Your task to perform on an android device: open chrome and create a bookmark for the current page Image 0: 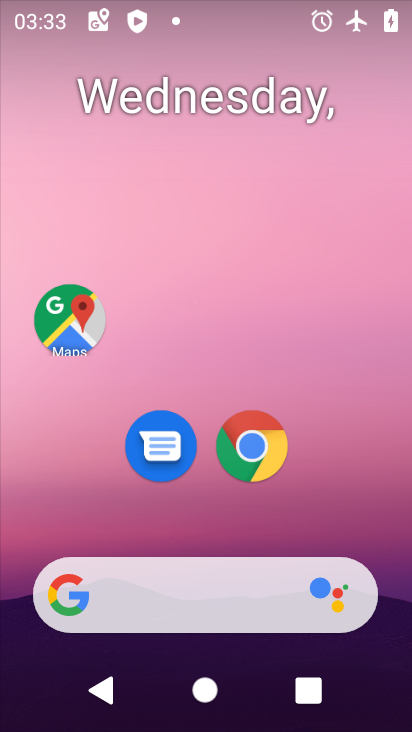
Step 0: click (280, 455)
Your task to perform on an android device: open chrome and create a bookmark for the current page Image 1: 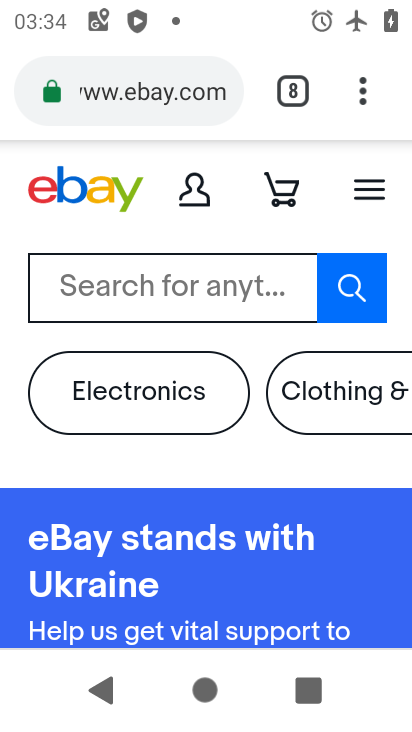
Step 1: click (358, 93)
Your task to perform on an android device: open chrome and create a bookmark for the current page Image 2: 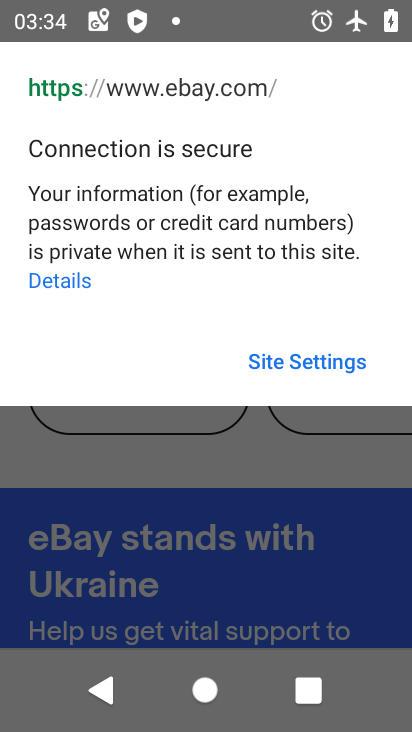
Step 2: click (295, 357)
Your task to perform on an android device: open chrome and create a bookmark for the current page Image 3: 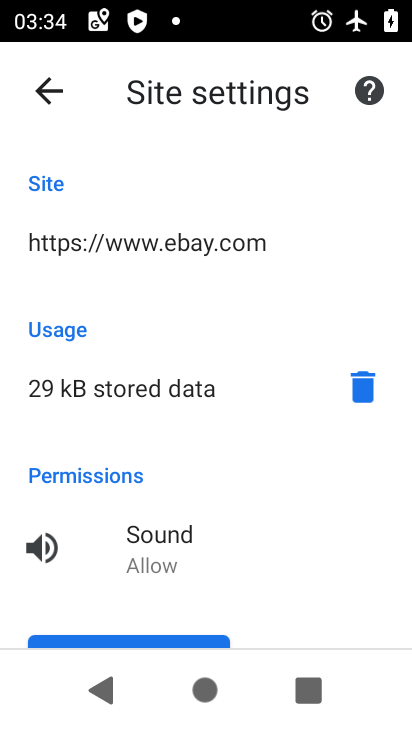
Step 3: click (55, 83)
Your task to perform on an android device: open chrome and create a bookmark for the current page Image 4: 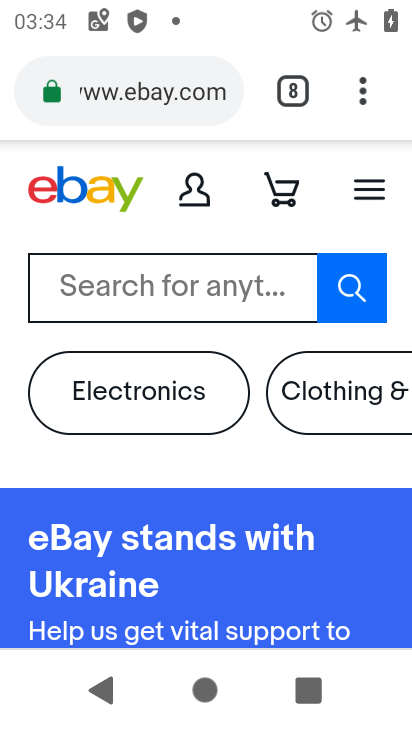
Step 4: click (306, 96)
Your task to perform on an android device: open chrome and create a bookmark for the current page Image 5: 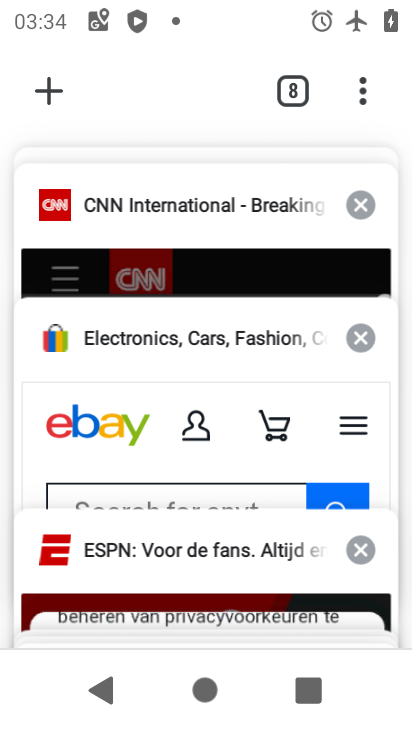
Step 5: click (225, 194)
Your task to perform on an android device: open chrome and create a bookmark for the current page Image 6: 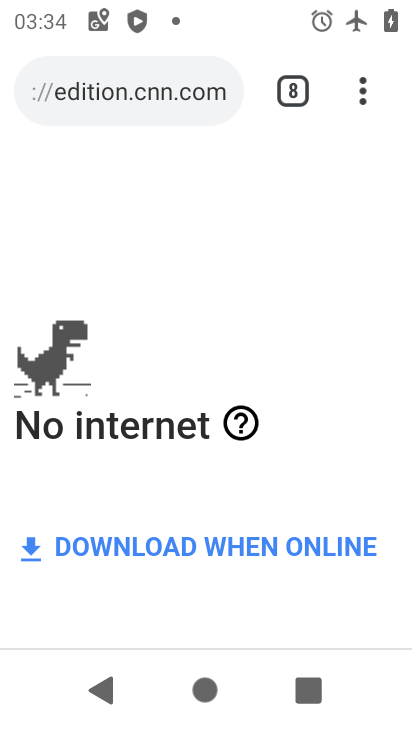
Step 6: click (361, 91)
Your task to perform on an android device: open chrome and create a bookmark for the current page Image 7: 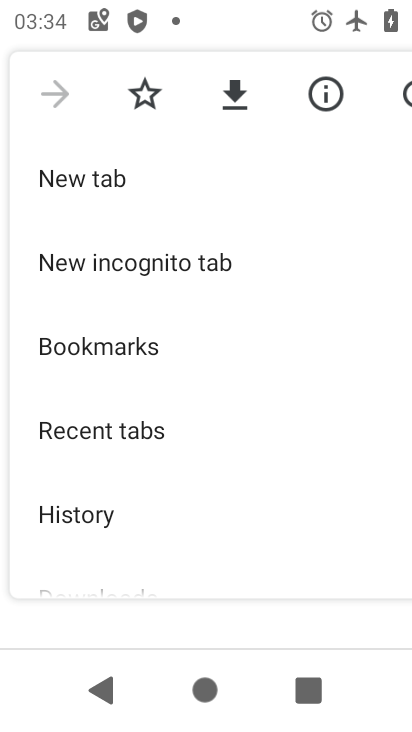
Step 7: task complete